Your task to perform on an android device: Show me recent news Image 0: 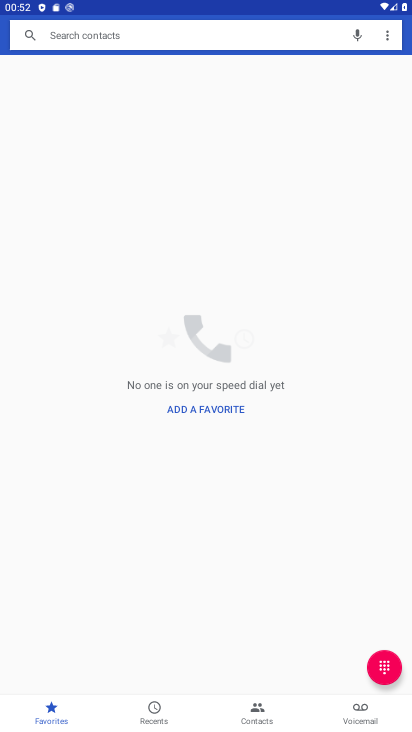
Step 0: drag from (260, 401) to (268, 167)
Your task to perform on an android device: Show me recent news Image 1: 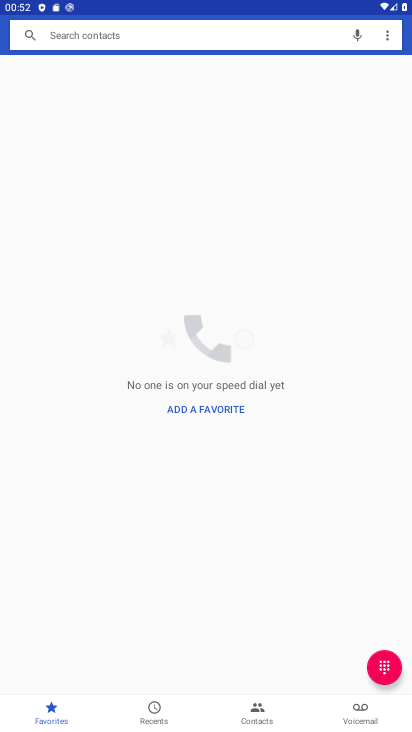
Step 1: press home button
Your task to perform on an android device: Show me recent news Image 2: 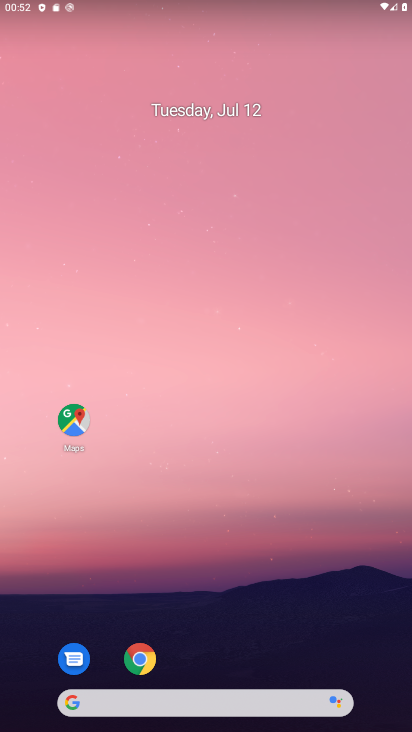
Step 2: drag from (189, 585) to (236, 10)
Your task to perform on an android device: Show me recent news Image 3: 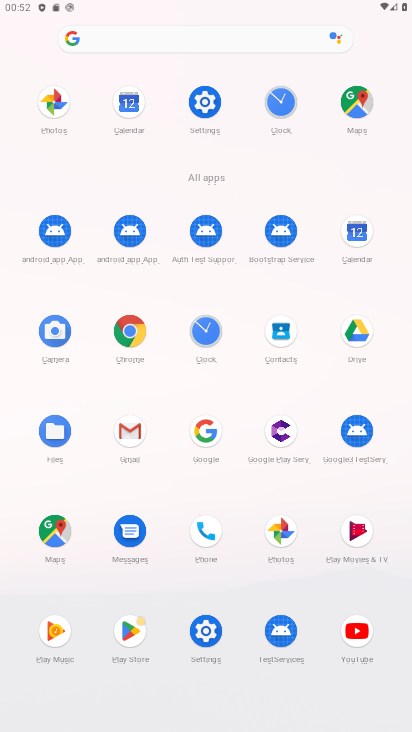
Step 3: click (143, 37)
Your task to perform on an android device: Show me recent news Image 4: 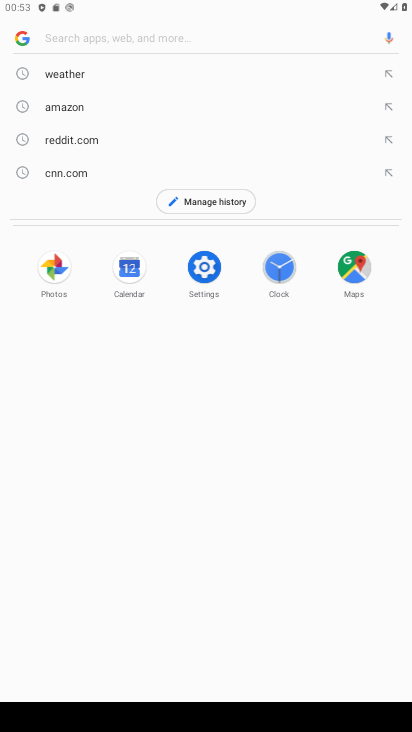
Step 4: type "recent news"
Your task to perform on an android device: Show me recent news Image 5: 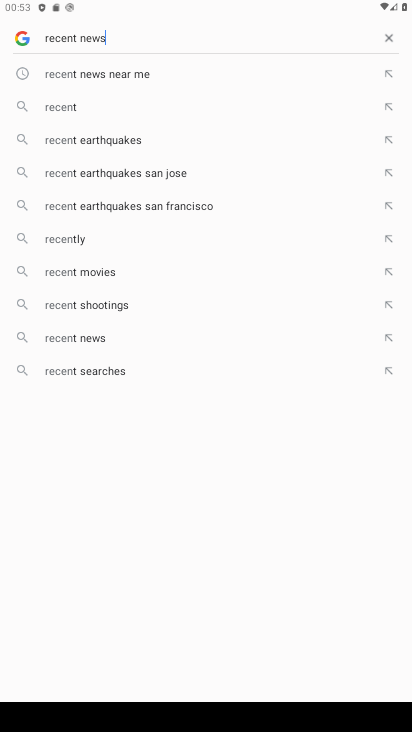
Step 5: type ""
Your task to perform on an android device: Show me recent news Image 6: 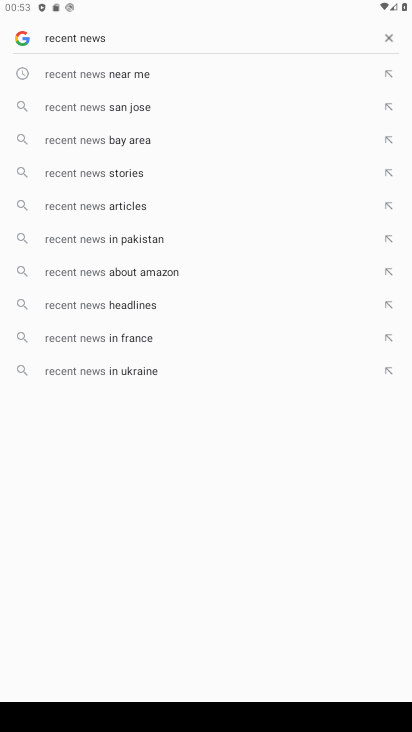
Step 6: click (87, 69)
Your task to perform on an android device: Show me recent news Image 7: 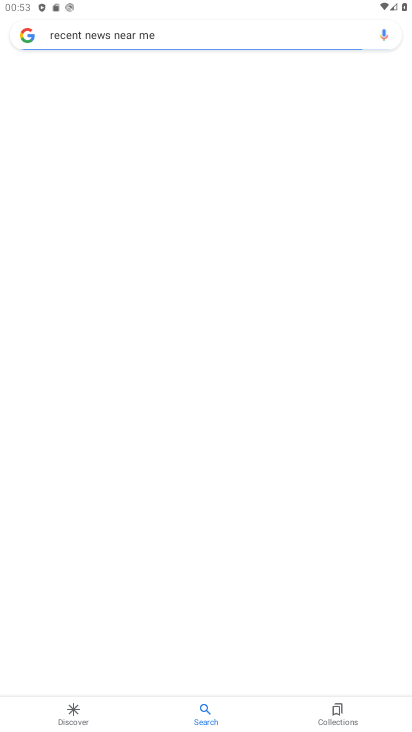
Step 7: task complete